Your task to perform on an android device: Is it going to rain this weekend? Image 0: 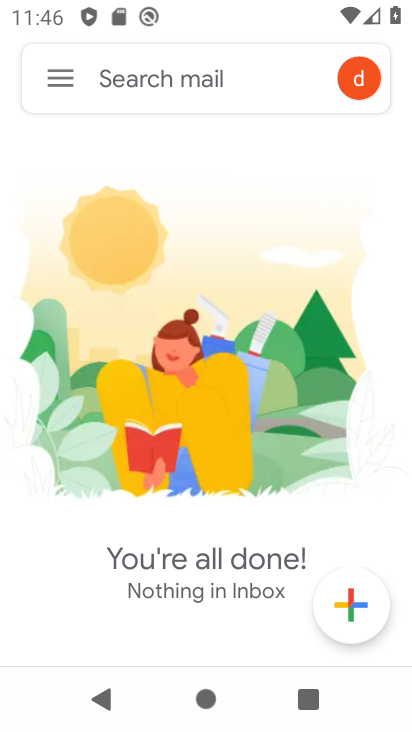
Step 0: press home button
Your task to perform on an android device: Is it going to rain this weekend? Image 1: 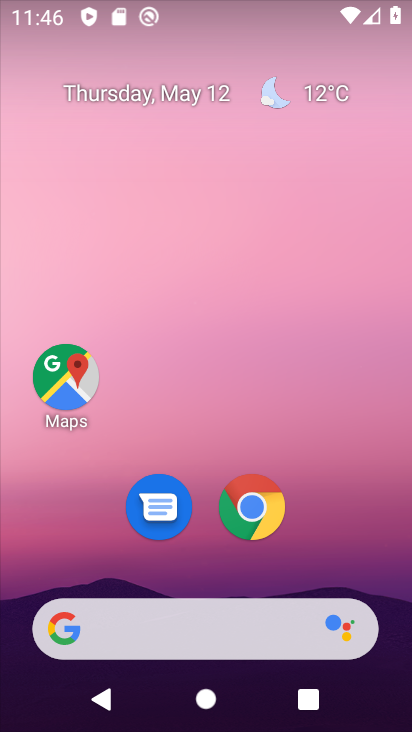
Step 1: click (271, 518)
Your task to perform on an android device: Is it going to rain this weekend? Image 2: 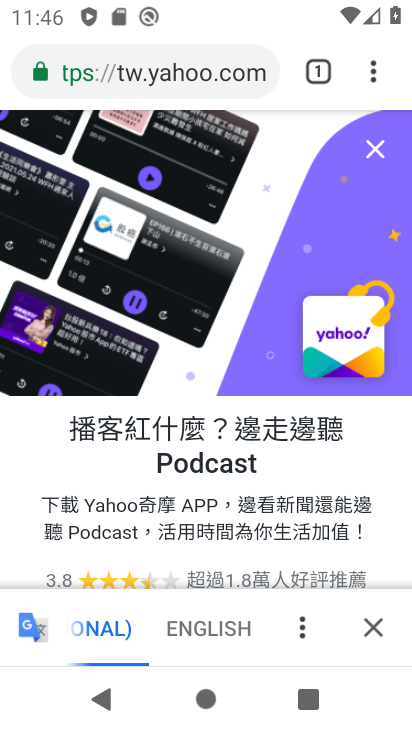
Step 2: click (143, 73)
Your task to perform on an android device: Is it going to rain this weekend? Image 3: 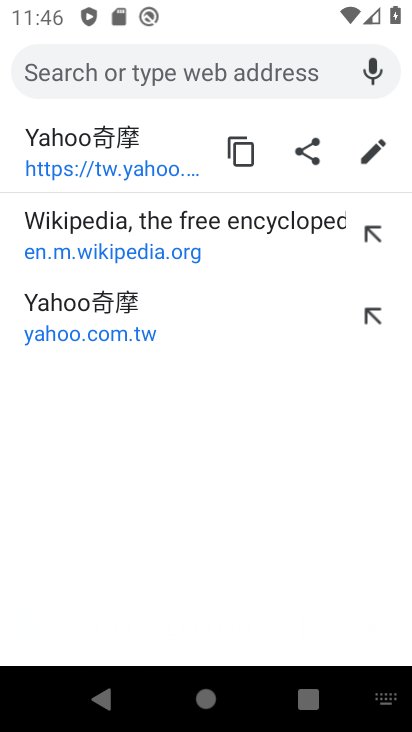
Step 3: type "is it going to rain this weekend"
Your task to perform on an android device: Is it going to rain this weekend? Image 4: 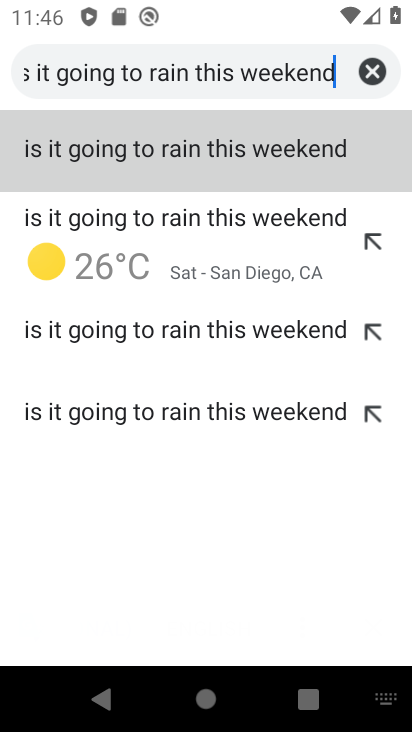
Step 4: click (228, 157)
Your task to perform on an android device: Is it going to rain this weekend? Image 5: 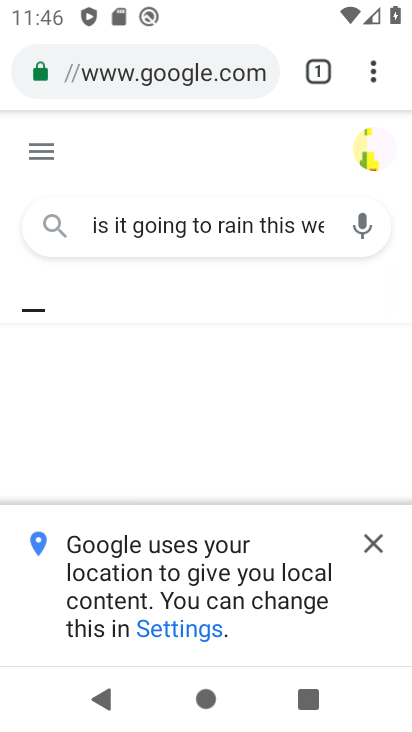
Step 5: click (372, 544)
Your task to perform on an android device: Is it going to rain this weekend? Image 6: 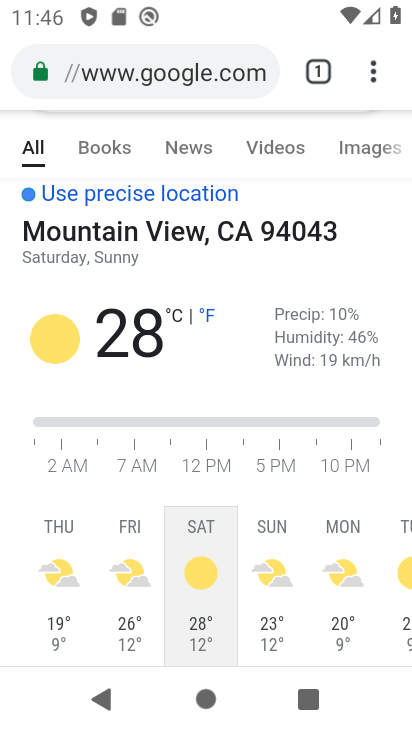
Step 6: task complete